Your task to perform on an android device: Open settings on Google Maps Image 0: 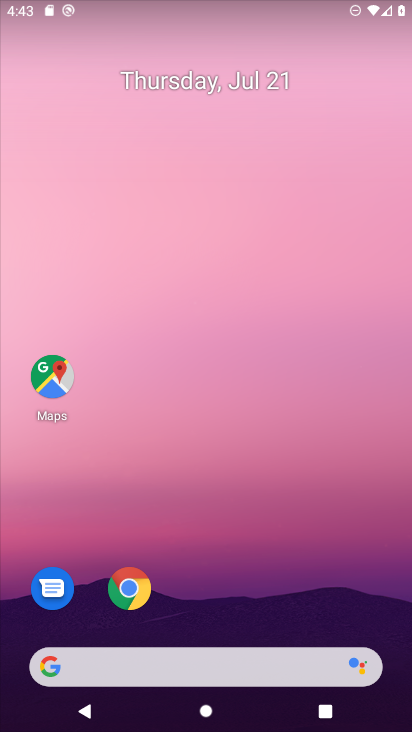
Step 0: drag from (228, 606) to (268, 177)
Your task to perform on an android device: Open settings on Google Maps Image 1: 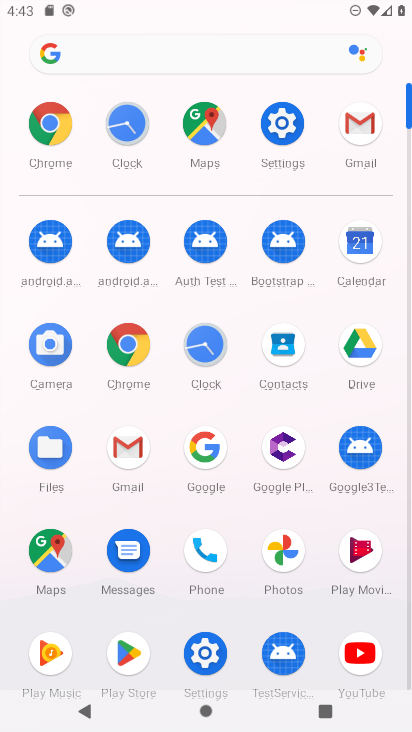
Step 1: click (71, 545)
Your task to perform on an android device: Open settings on Google Maps Image 2: 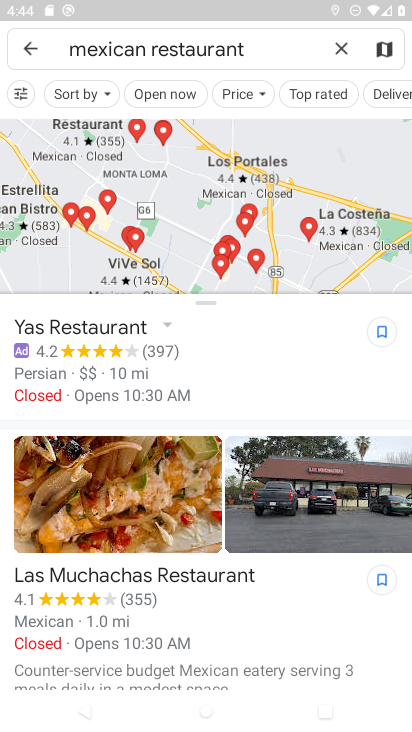
Step 2: click (33, 45)
Your task to perform on an android device: Open settings on Google Maps Image 3: 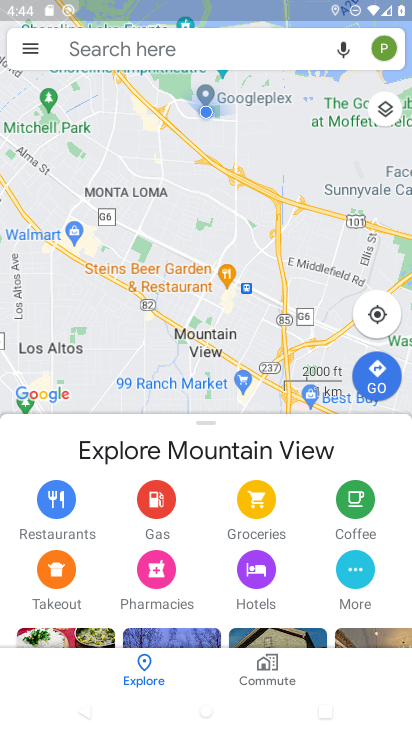
Step 3: click (38, 51)
Your task to perform on an android device: Open settings on Google Maps Image 4: 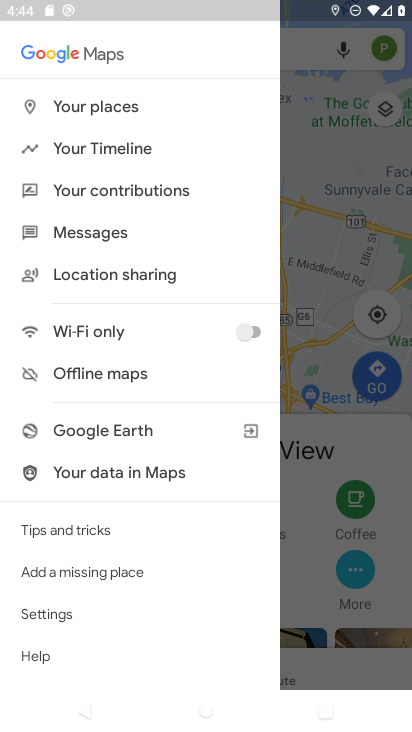
Step 4: click (82, 612)
Your task to perform on an android device: Open settings on Google Maps Image 5: 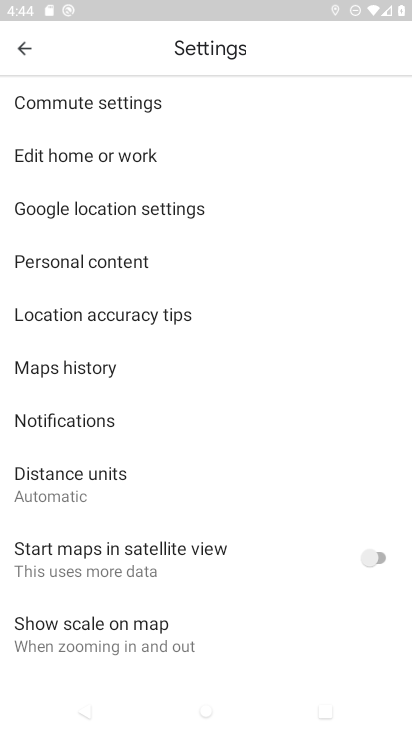
Step 5: task complete